Your task to perform on an android device: Open Amazon Image 0: 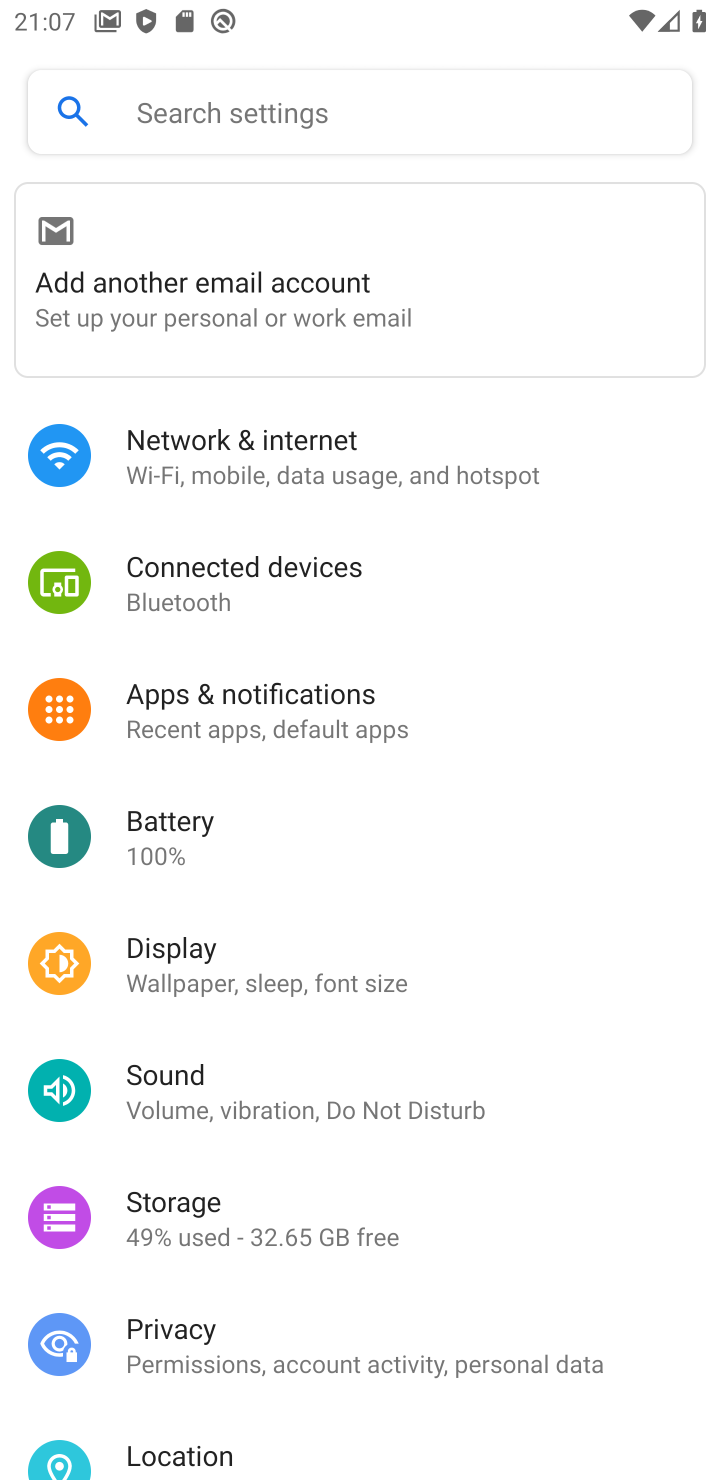
Step 0: press home button
Your task to perform on an android device: Open Amazon Image 1: 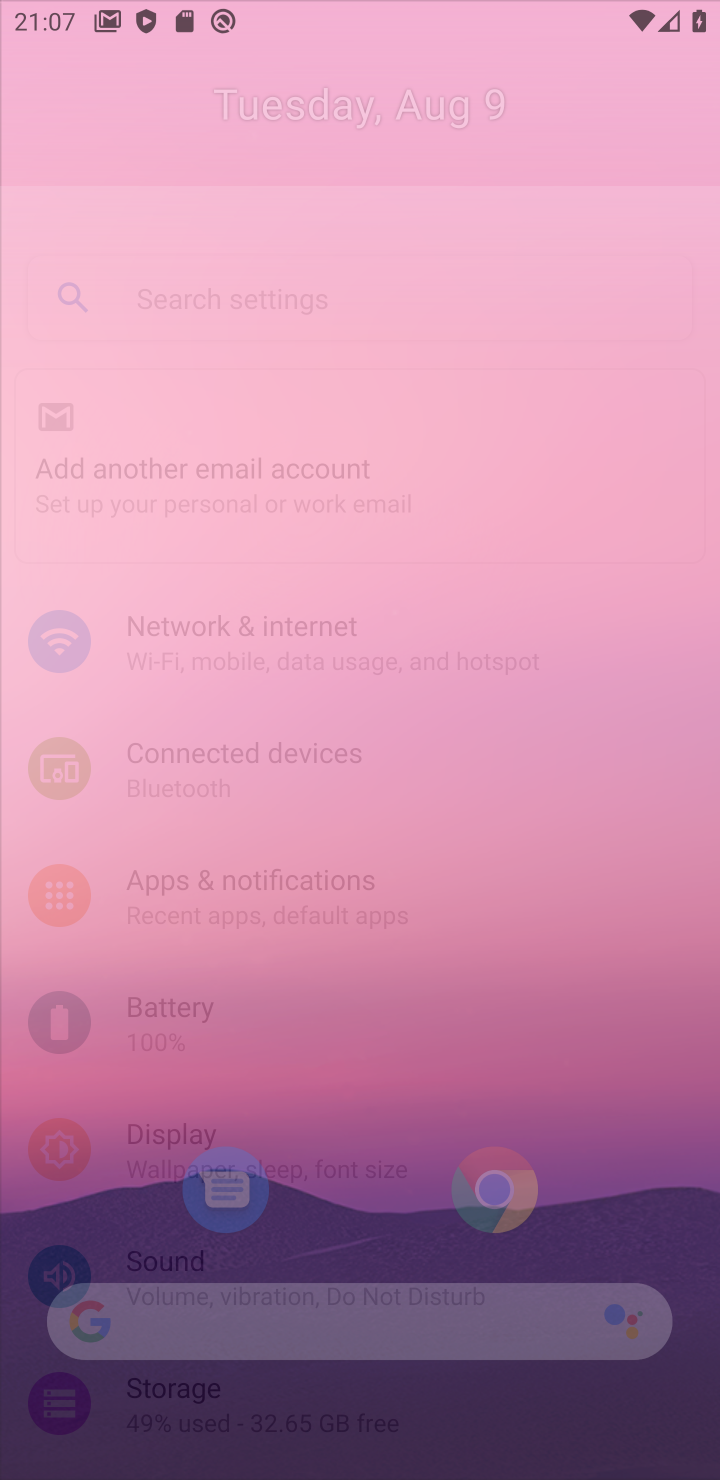
Step 1: click (718, 800)
Your task to perform on an android device: Open Amazon Image 2: 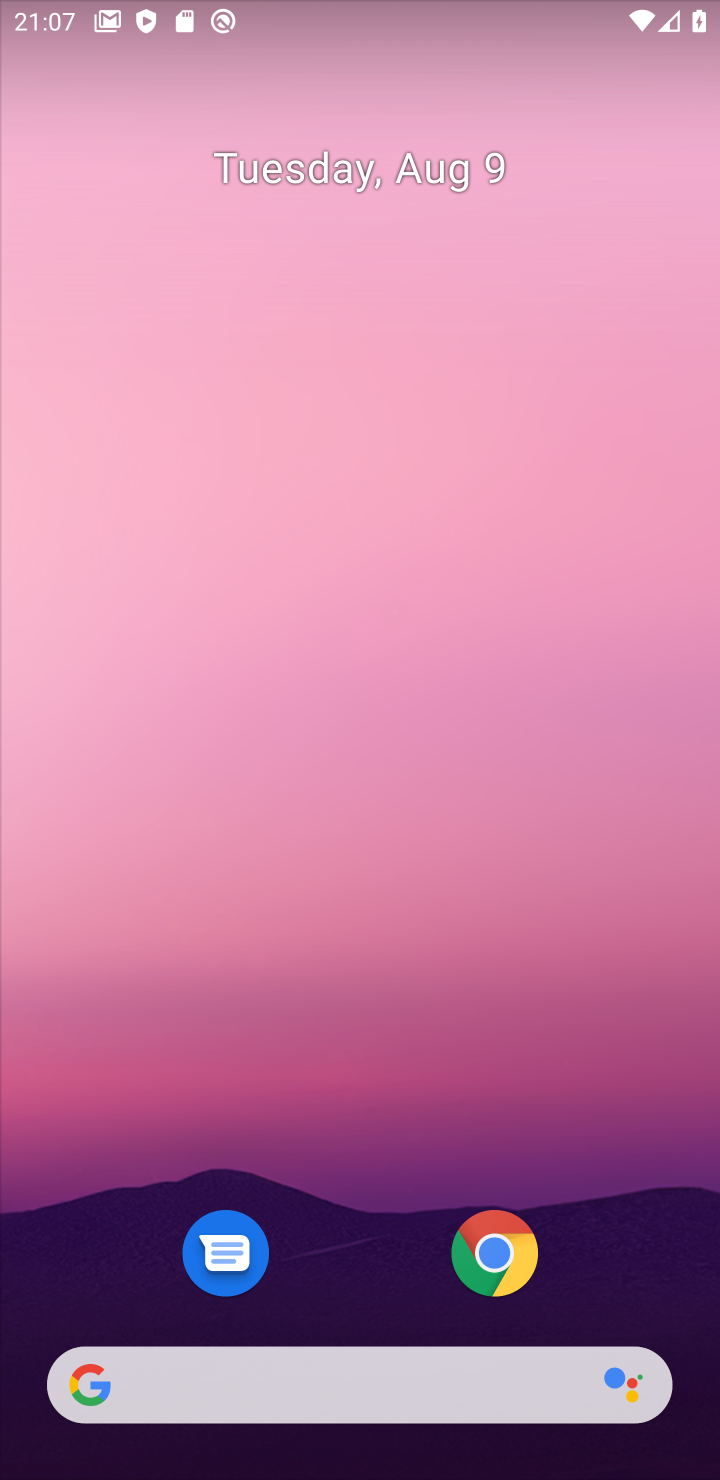
Step 2: drag from (620, 1192) to (497, 196)
Your task to perform on an android device: Open Amazon Image 3: 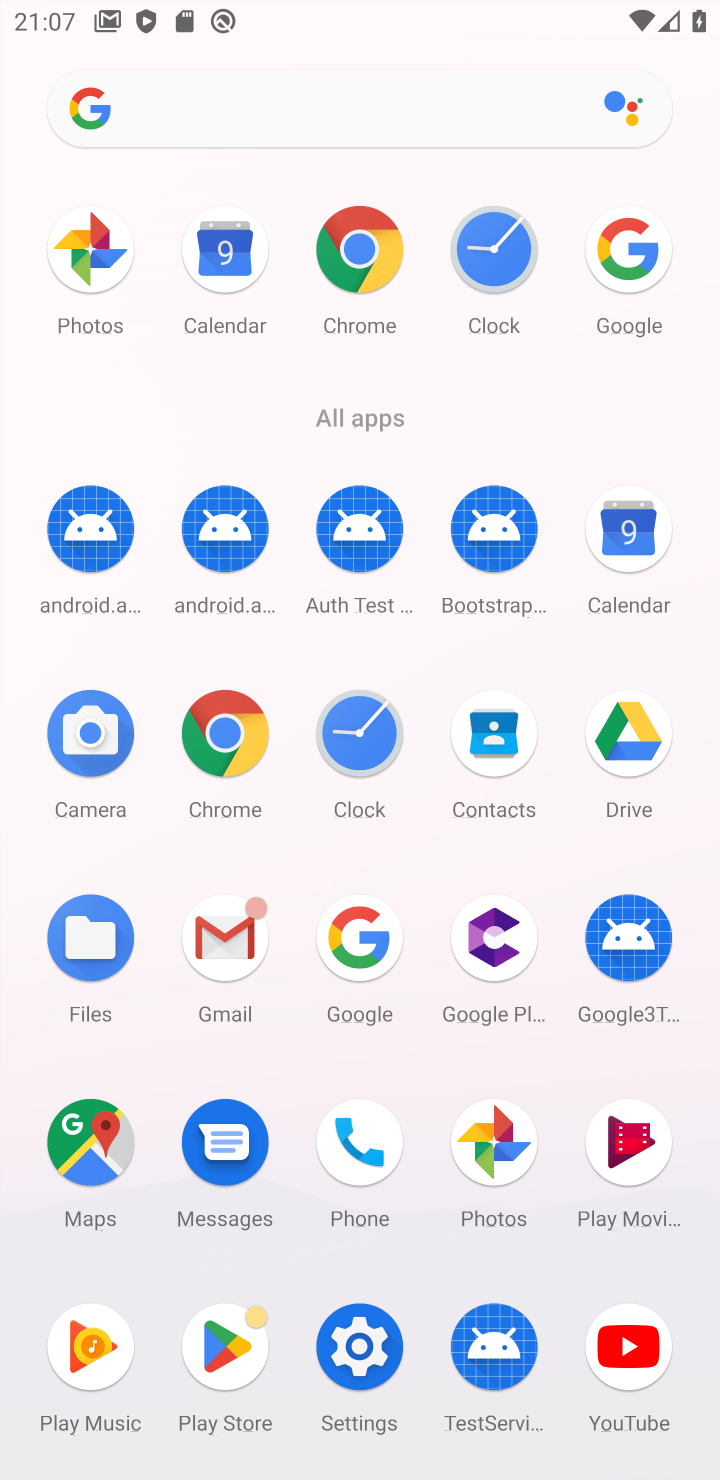
Step 3: click (230, 737)
Your task to perform on an android device: Open Amazon Image 4: 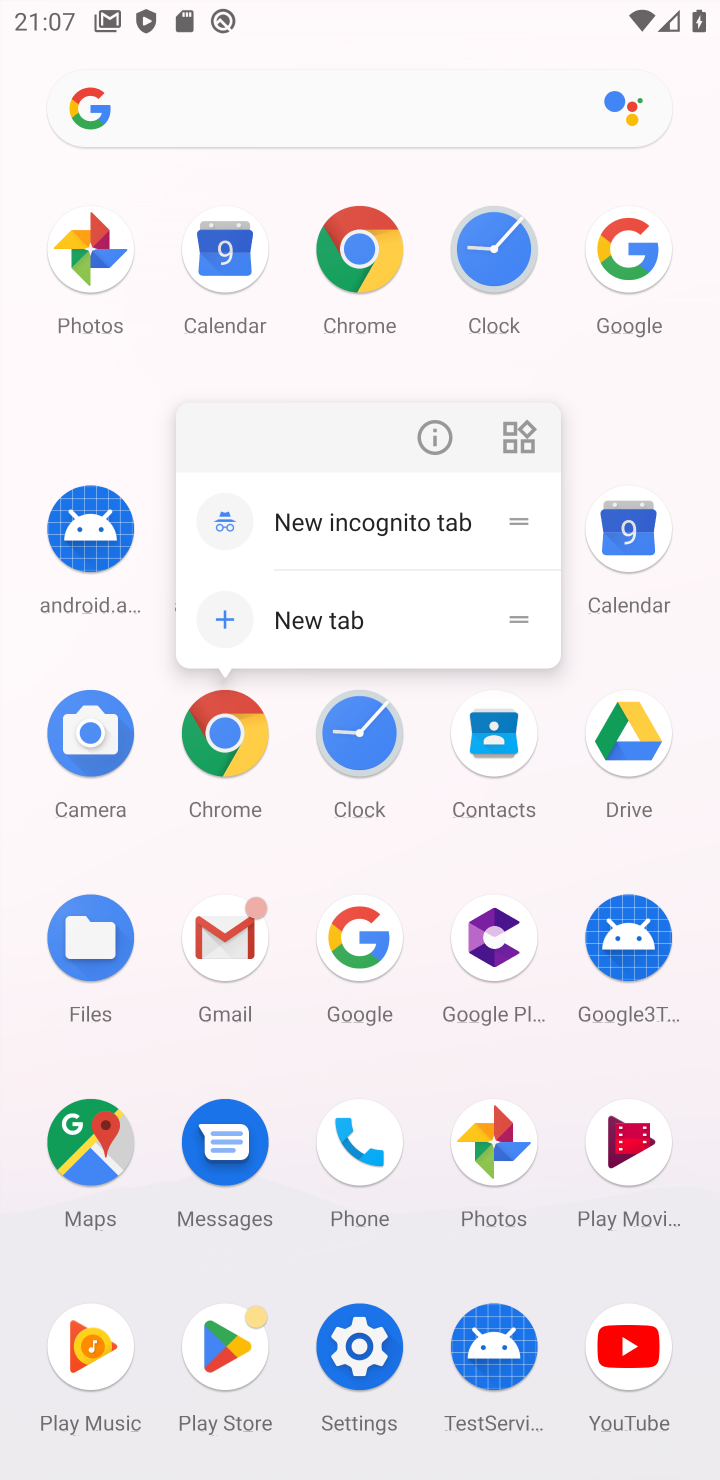
Step 4: click (227, 735)
Your task to perform on an android device: Open Amazon Image 5: 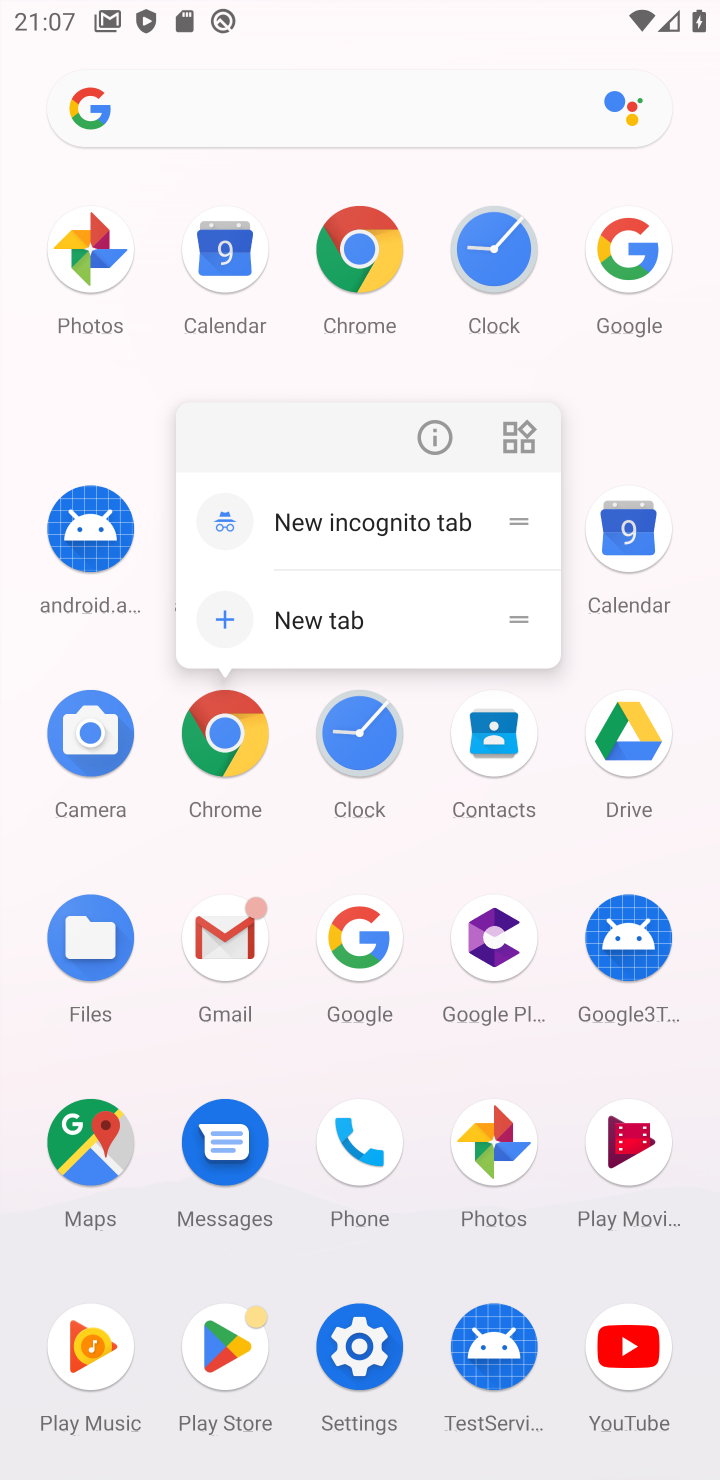
Step 5: click (230, 739)
Your task to perform on an android device: Open Amazon Image 6: 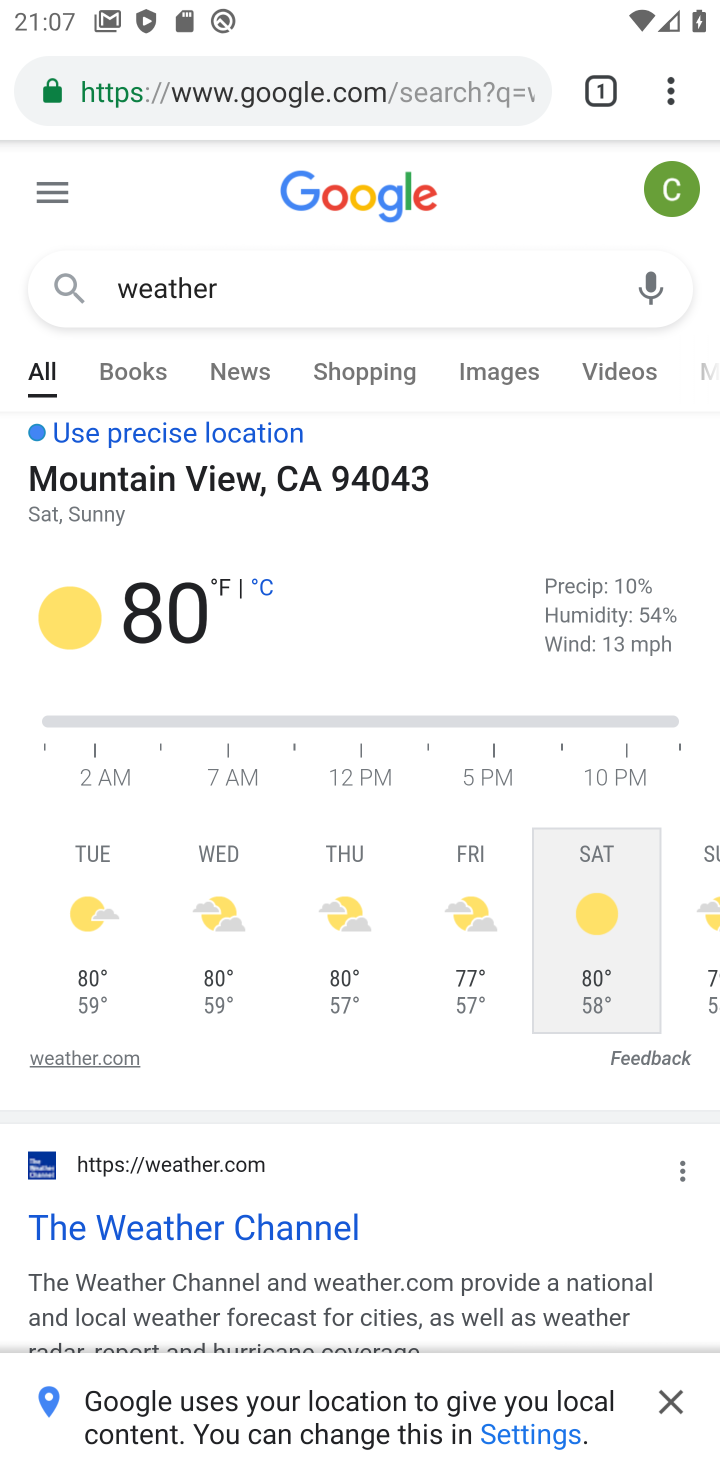
Step 6: click (383, 89)
Your task to perform on an android device: Open Amazon Image 7: 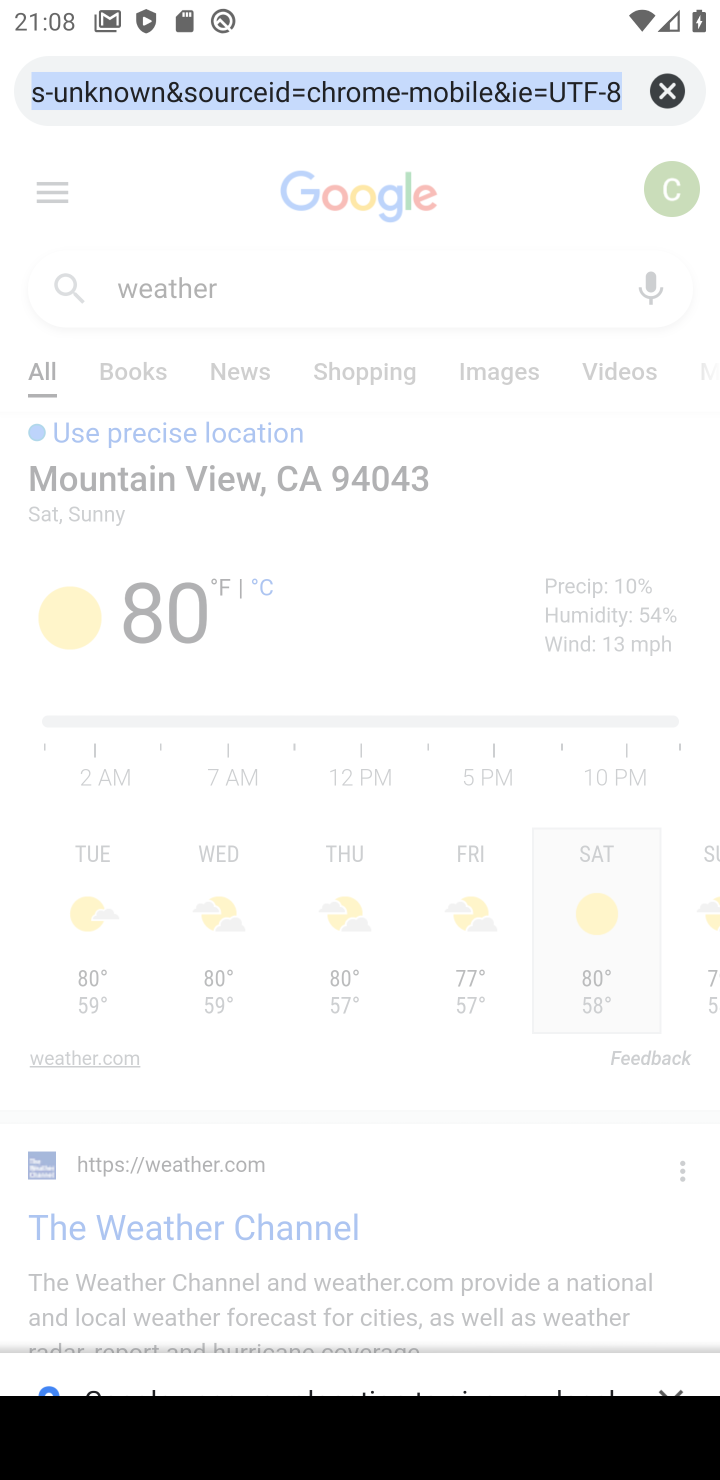
Step 7: type "amazon"
Your task to perform on an android device: Open Amazon Image 8: 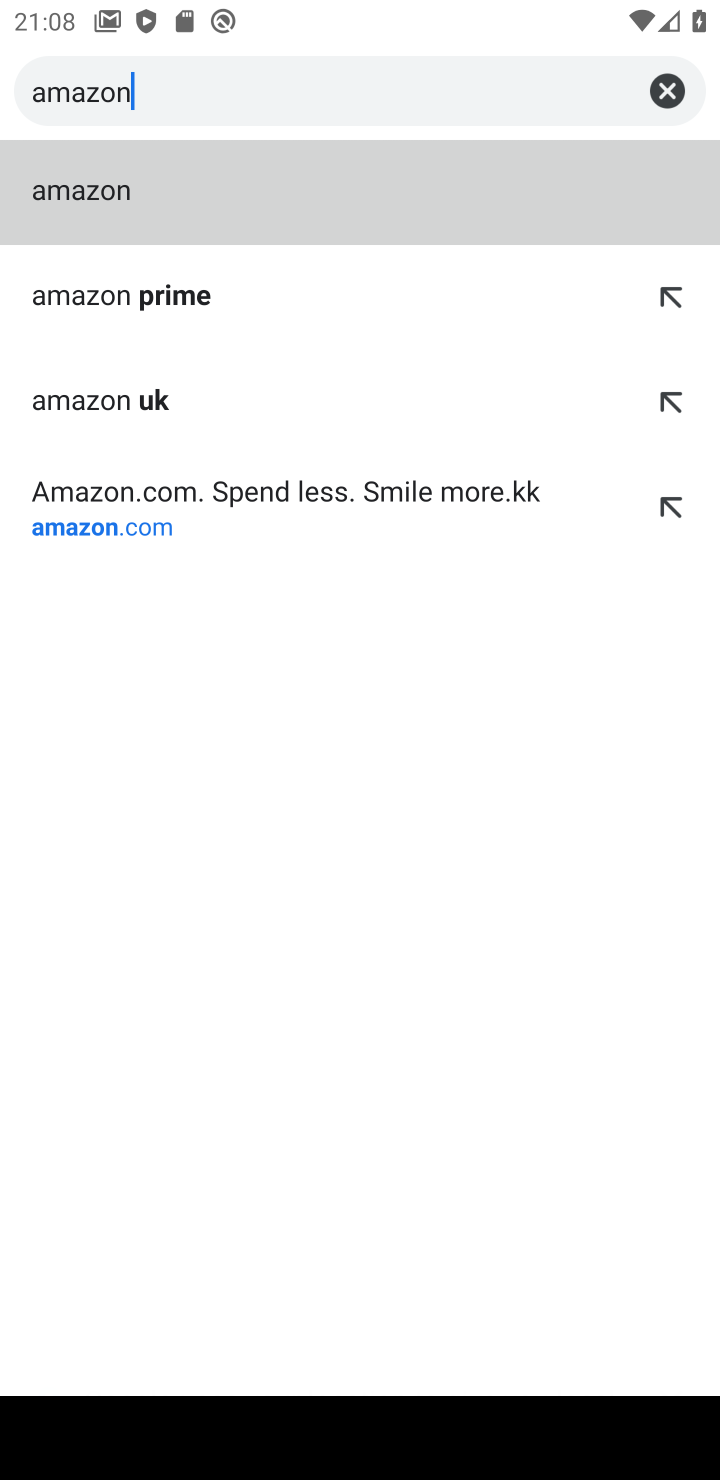
Step 8: click (181, 197)
Your task to perform on an android device: Open Amazon Image 9: 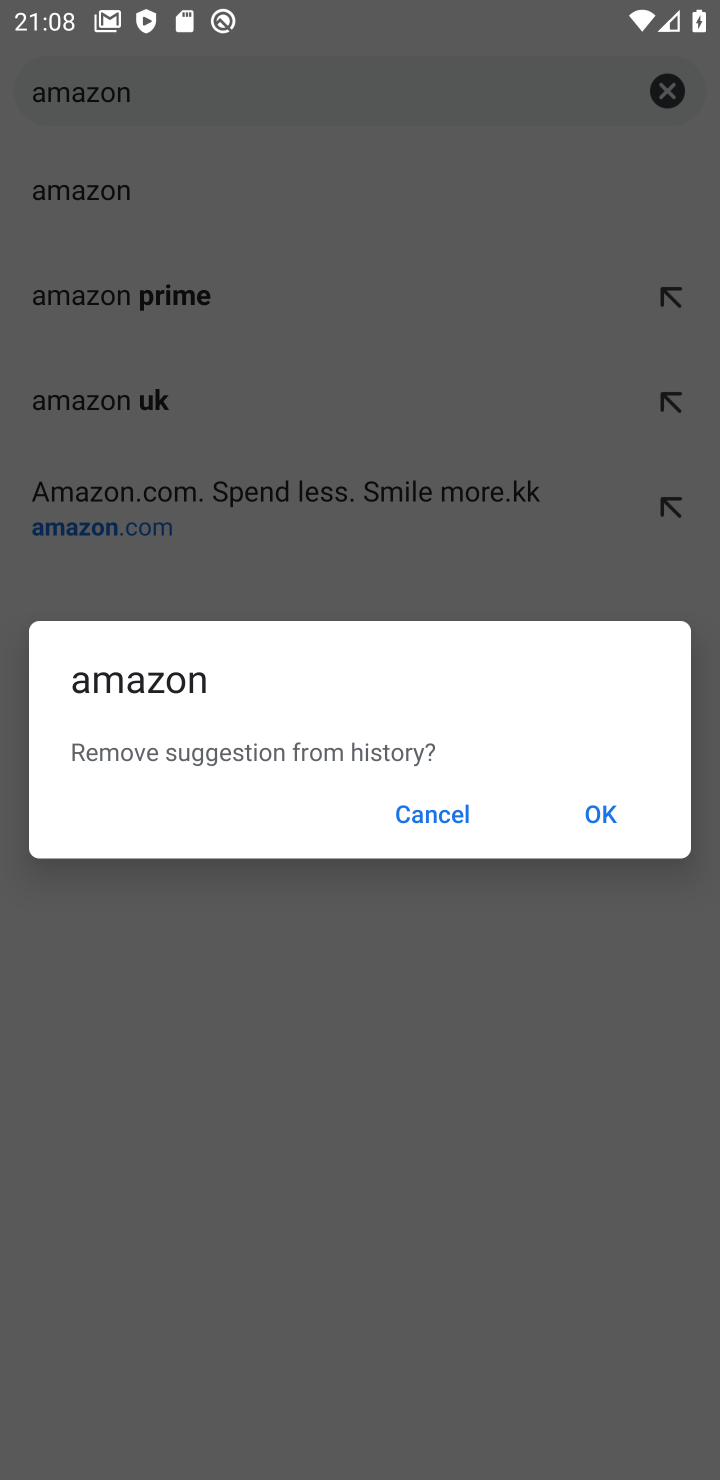
Step 9: click (458, 812)
Your task to perform on an android device: Open Amazon Image 10: 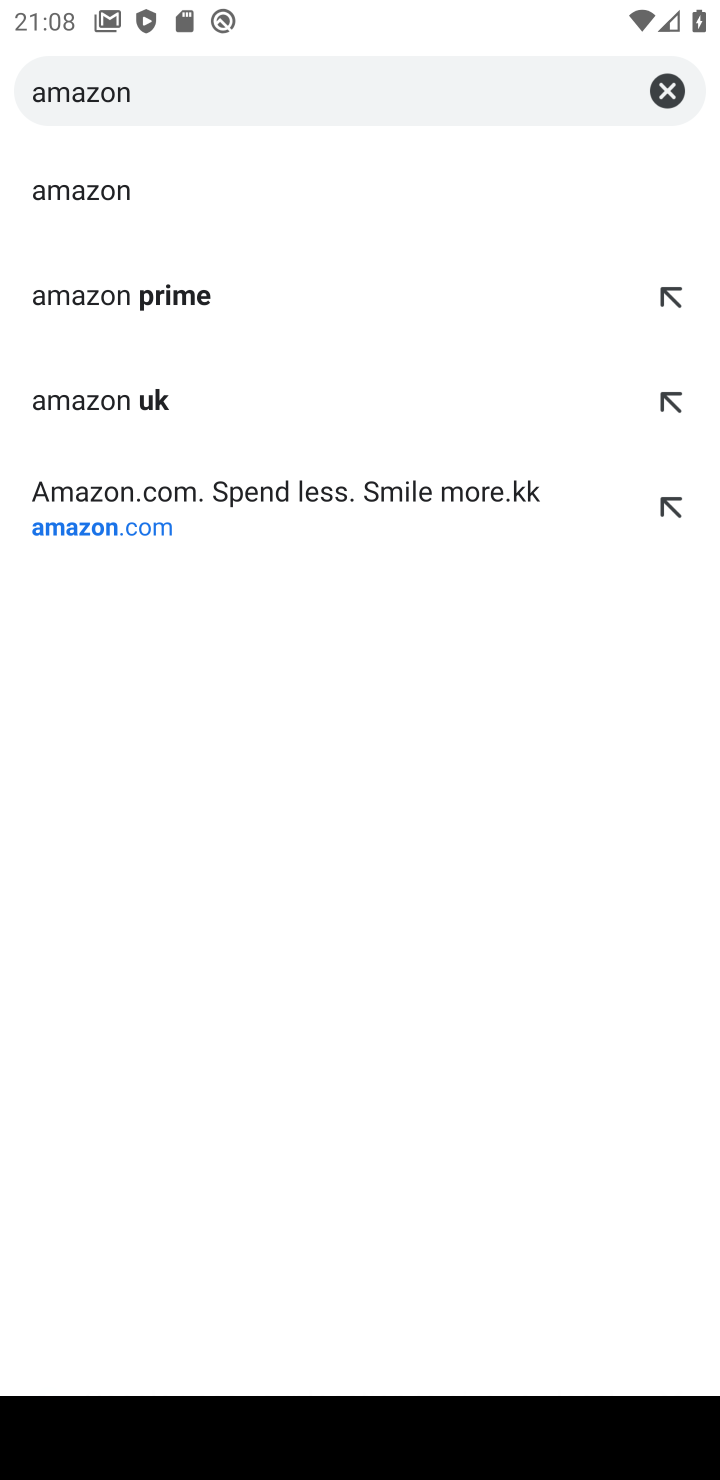
Step 10: click (122, 527)
Your task to perform on an android device: Open Amazon Image 11: 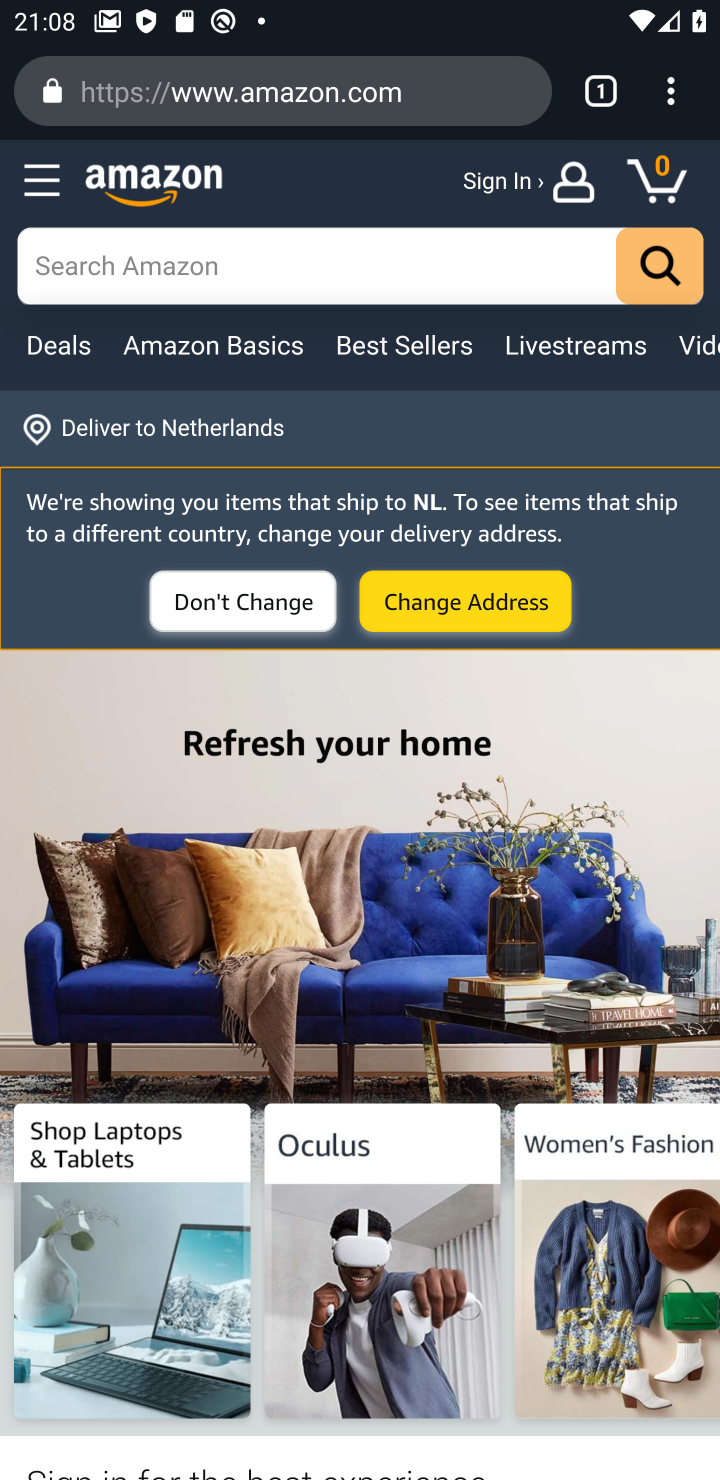
Step 11: task complete